Your task to perform on an android device: turn off notifications in google photos Image 0: 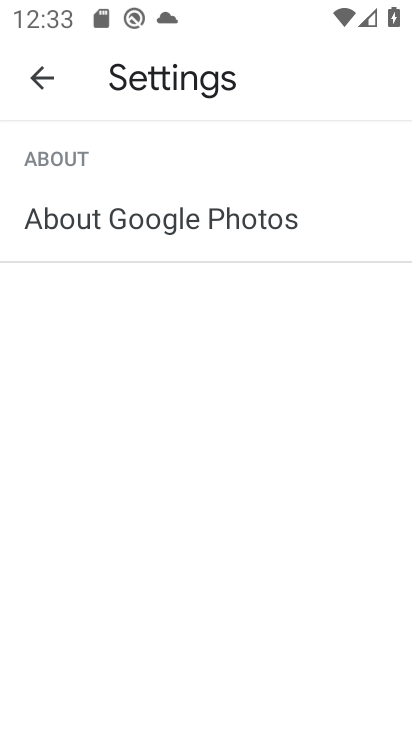
Step 0: click (40, 77)
Your task to perform on an android device: turn off notifications in google photos Image 1: 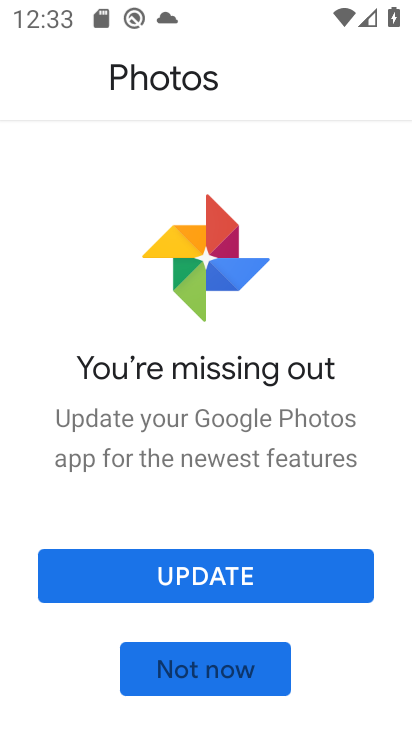
Step 1: click (224, 672)
Your task to perform on an android device: turn off notifications in google photos Image 2: 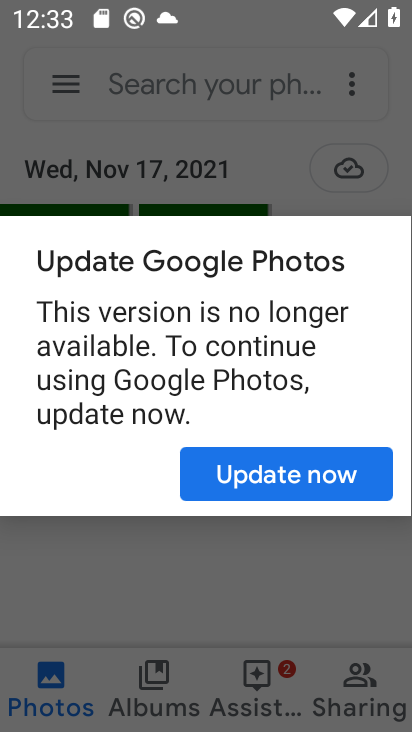
Step 2: click (292, 486)
Your task to perform on an android device: turn off notifications in google photos Image 3: 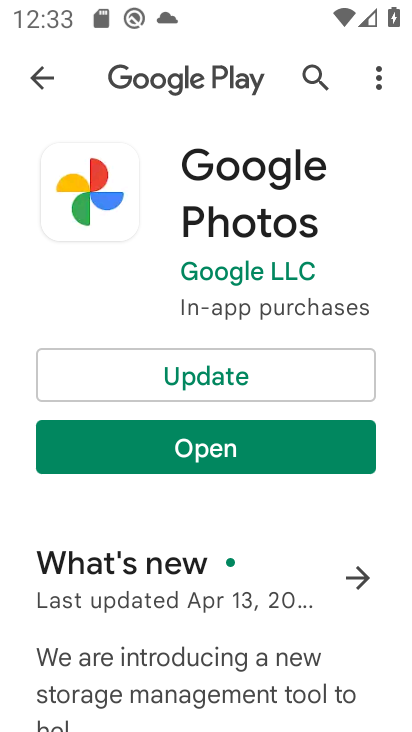
Step 3: click (222, 381)
Your task to perform on an android device: turn off notifications in google photos Image 4: 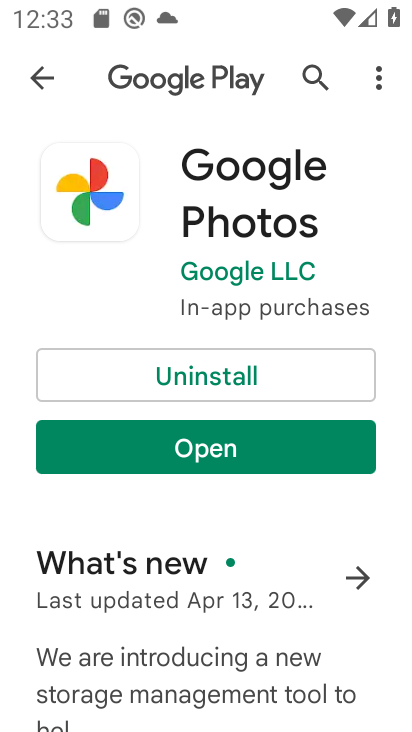
Step 4: click (237, 448)
Your task to perform on an android device: turn off notifications in google photos Image 5: 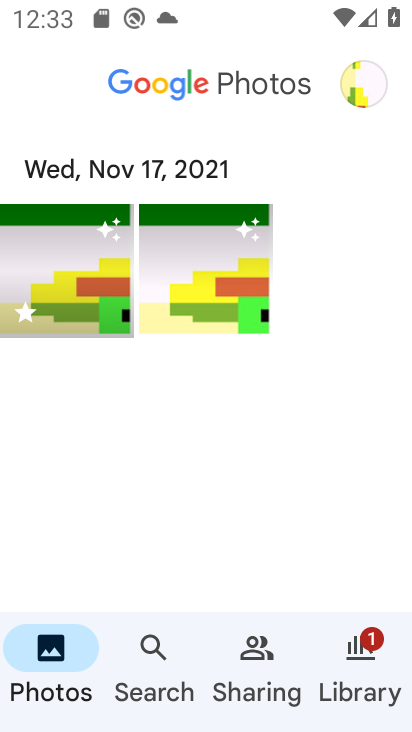
Step 5: click (372, 81)
Your task to perform on an android device: turn off notifications in google photos Image 6: 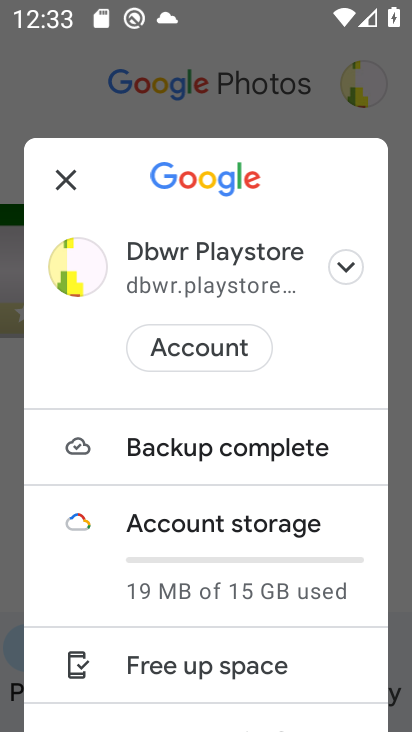
Step 6: drag from (234, 617) to (242, 196)
Your task to perform on an android device: turn off notifications in google photos Image 7: 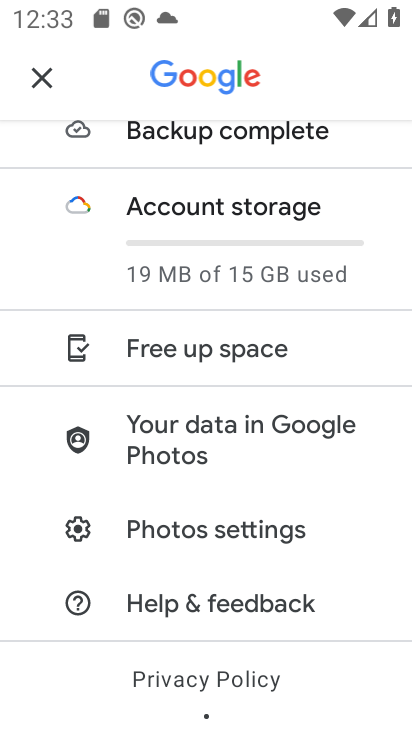
Step 7: drag from (211, 650) to (208, 295)
Your task to perform on an android device: turn off notifications in google photos Image 8: 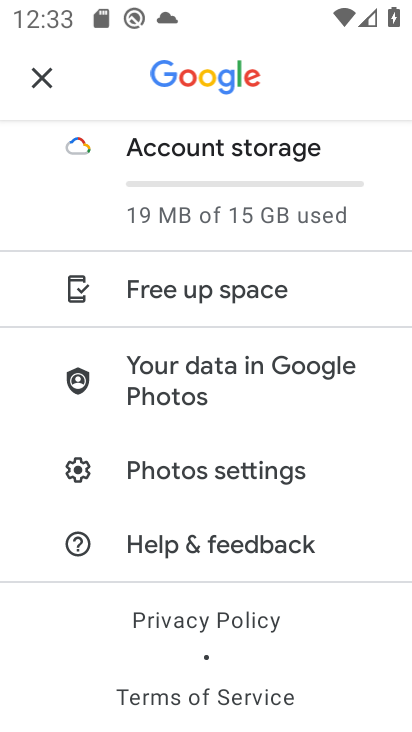
Step 8: click (212, 473)
Your task to perform on an android device: turn off notifications in google photos Image 9: 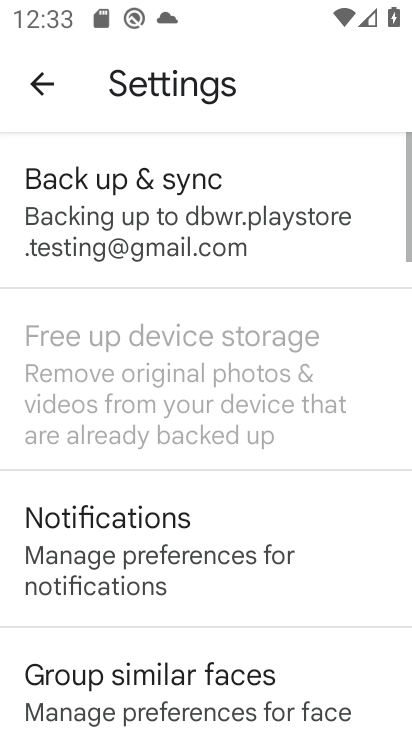
Step 9: click (168, 578)
Your task to perform on an android device: turn off notifications in google photos Image 10: 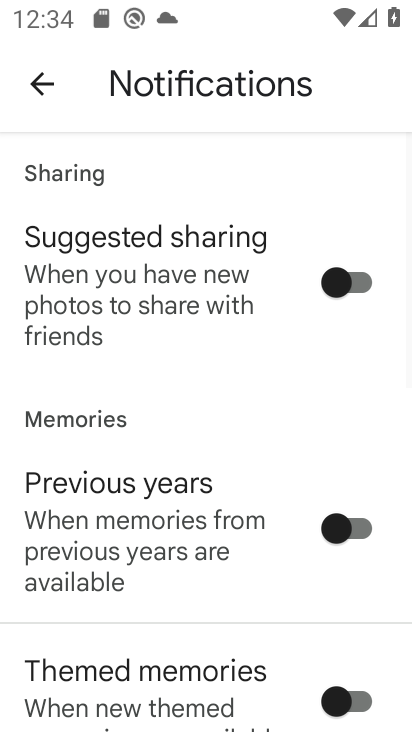
Step 10: drag from (109, 624) to (115, 177)
Your task to perform on an android device: turn off notifications in google photos Image 11: 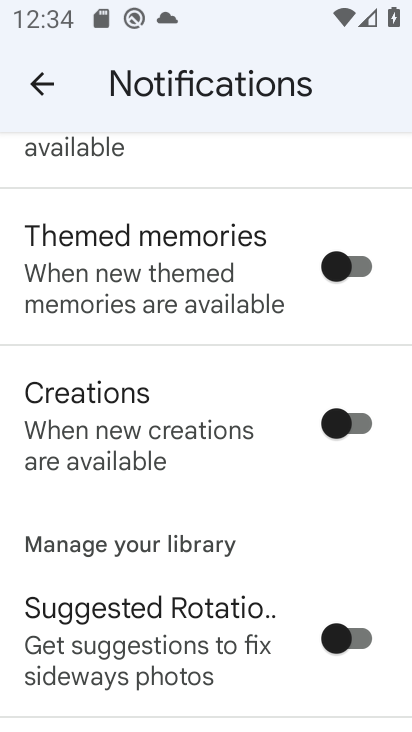
Step 11: drag from (98, 639) to (96, 142)
Your task to perform on an android device: turn off notifications in google photos Image 12: 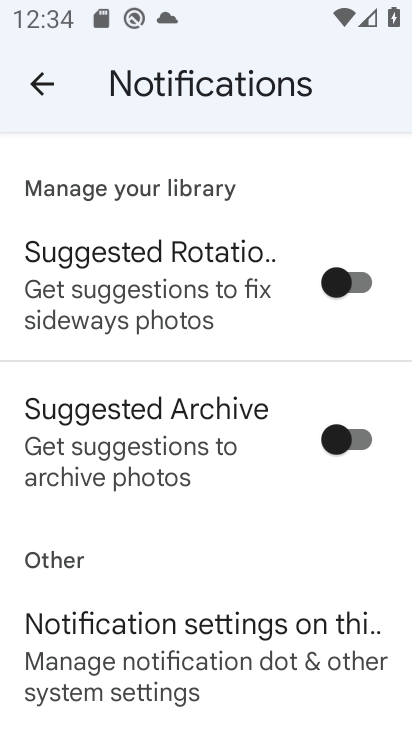
Step 12: drag from (139, 591) to (142, 388)
Your task to perform on an android device: turn off notifications in google photos Image 13: 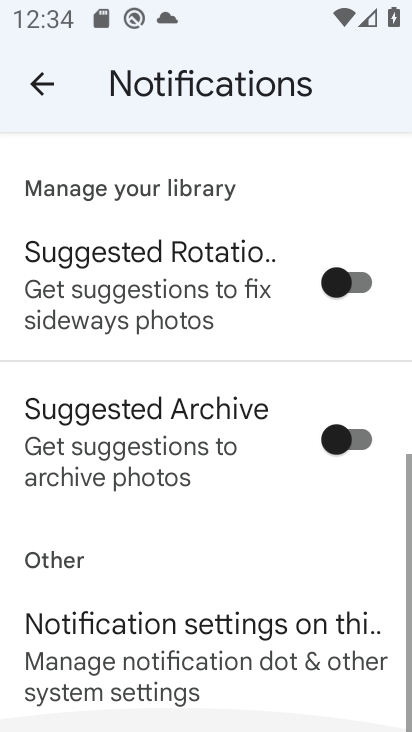
Step 13: click (121, 644)
Your task to perform on an android device: turn off notifications in google photos Image 14: 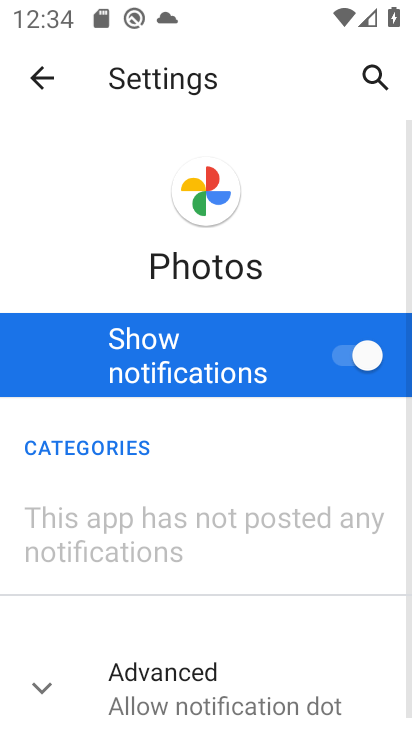
Step 14: click (364, 356)
Your task to perform on an android device: turn off notifications in google photos Image 15: 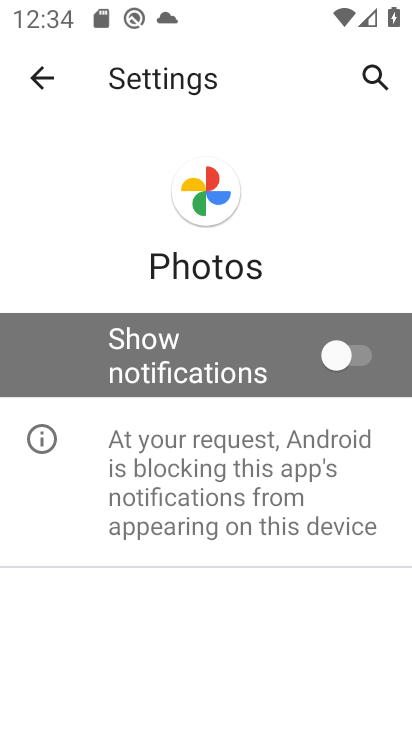
Step 15: task complete